Your task to perform on an android device: Go to Wikipedia Image 0: 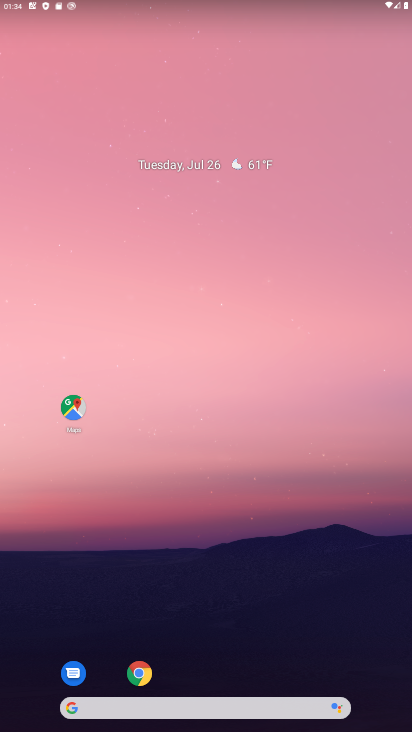
Step 0: click (140, 677)
Your task to perform on an android device: Go to Wikipedia Image 1: 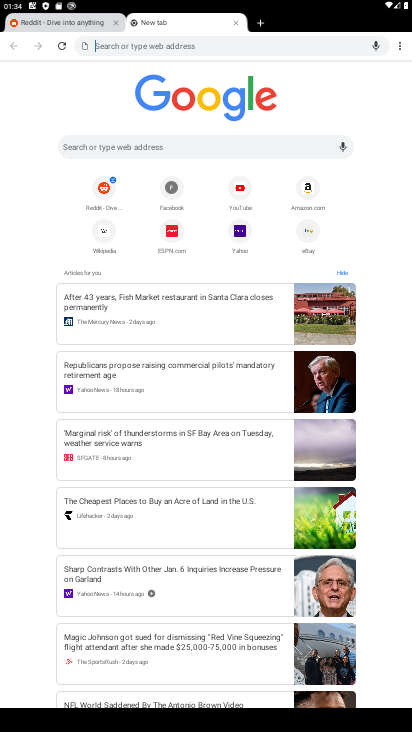
Step 1: click (103, 234)
Your task to perform on an android device: Go to Wikipedia Image 2: 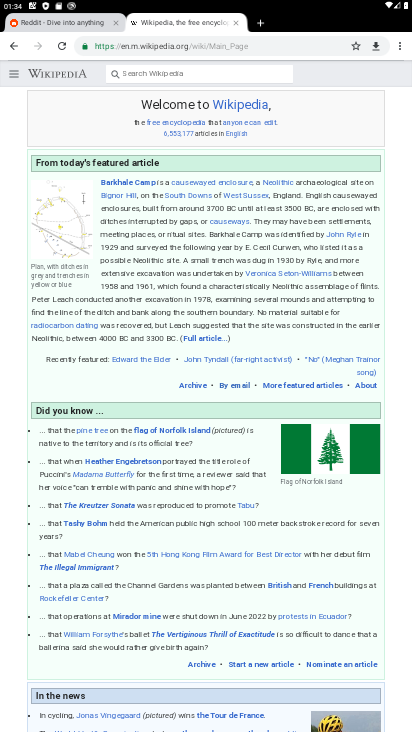
Step 2: task complete